Your task to perform on an android device: clear all cookies in the chrome app Image 0: 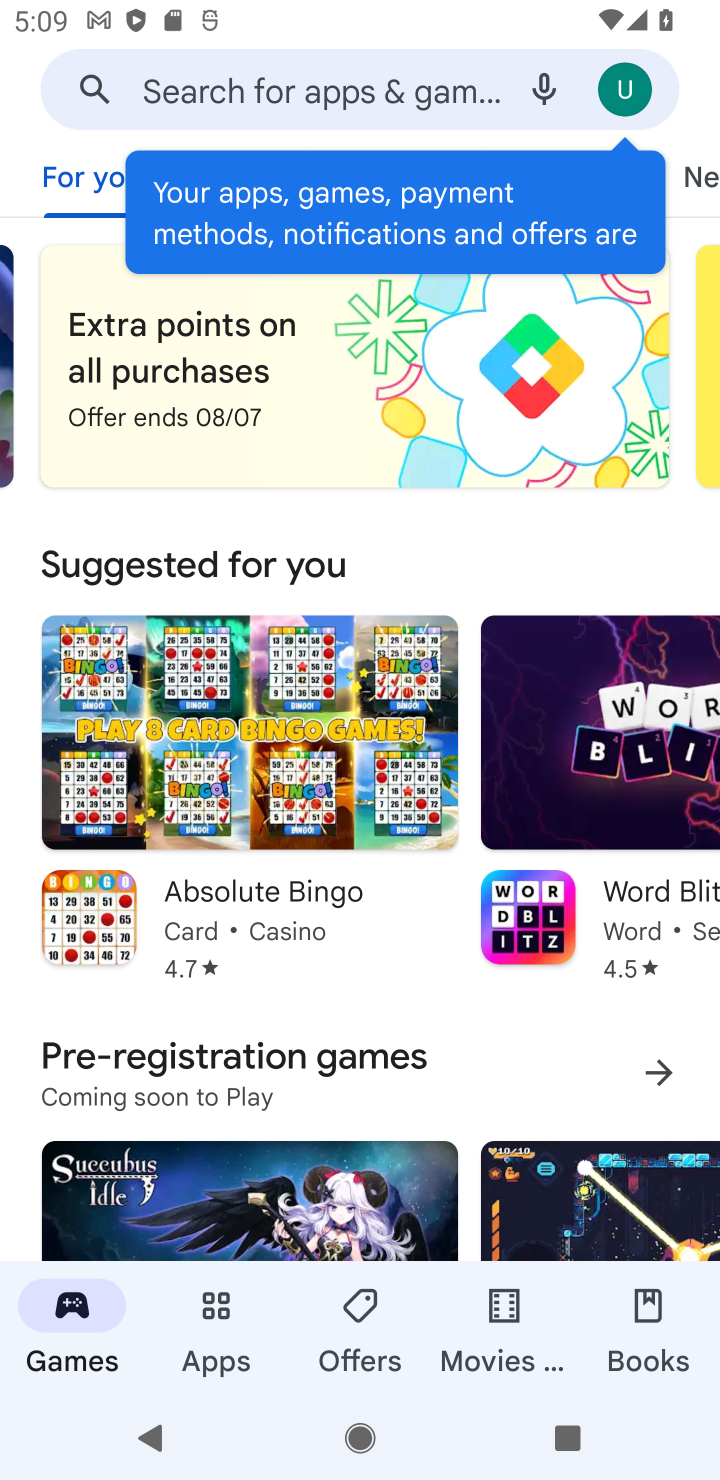
Step 0: task complete